Your task to perform on an android device: see sites visited before in the chrome app Image 0: 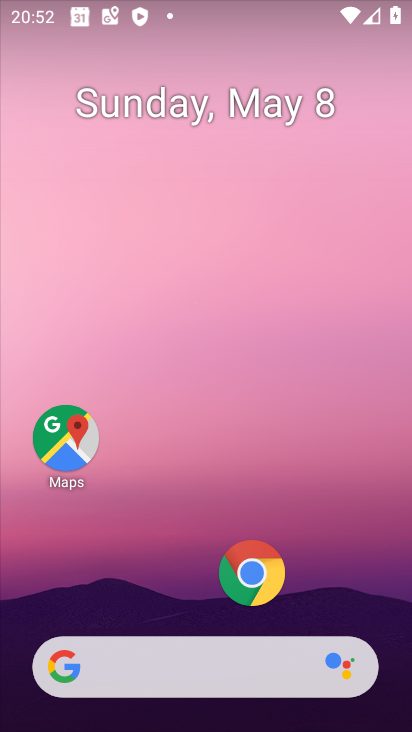
Step 0: drag from (172, 533) to (291, 129)
Your task to perform on an android device: see sites visited before in the chrome app Image 1: 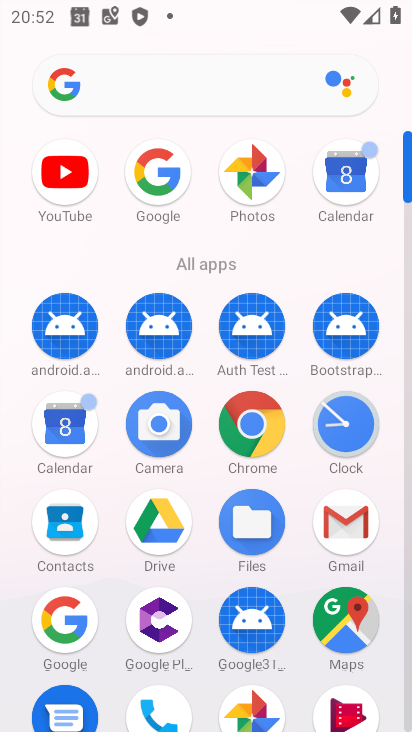
Step 1: drag from (206, 659) to (325, 241)
Your task to perform on an android device: see sites visited before in the chrome app Image 2: 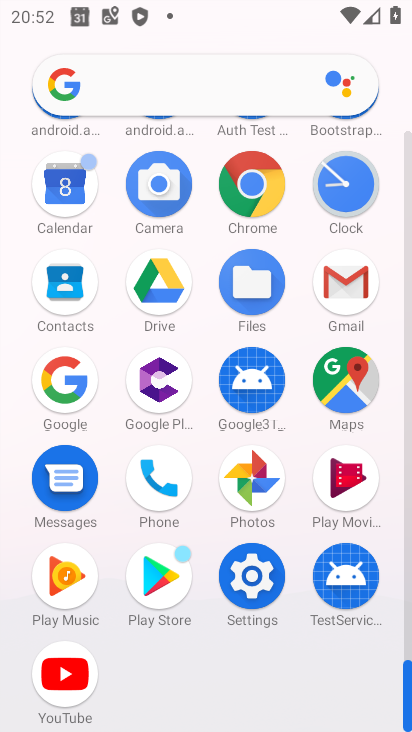
Step 2: drag from (285, 640) to (323, 372)
Your task to perform on an android device: see sites visited before in the chrome app Image 3: 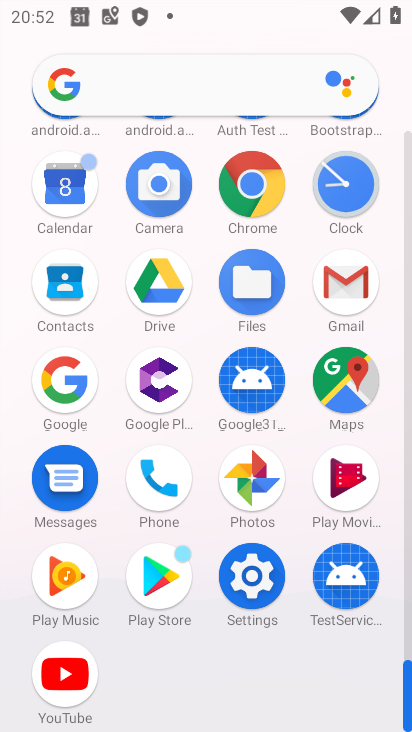
Step 3: click (247, 192)
Your task to perform on an android device: see sites visited before in the chrome app Image 4: 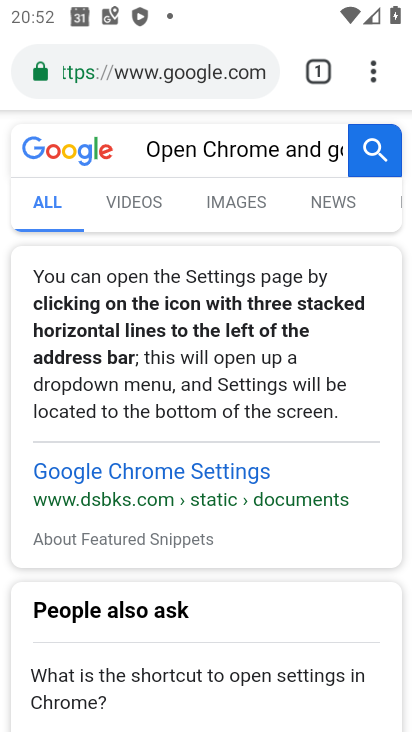
Step 4: click (377, 75)
Your task to perform on an android device: see sites visited before in the chrome app Image 5: 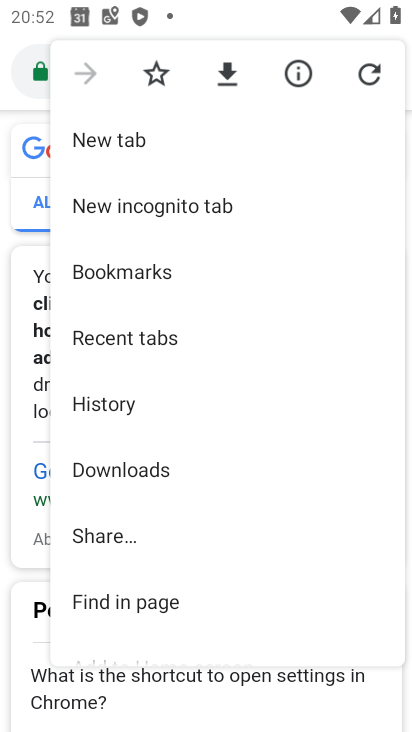
Step 5: click (142, 341)
Your task to perform on an android device: see sites visited before in the chrome app Image 6: 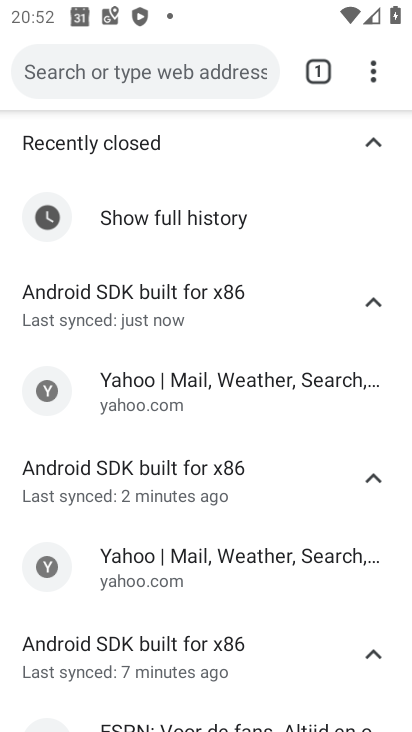
Step 6: task complete